Your task to perform on an android device: Search for Italian restaurants on Maps Image 0: 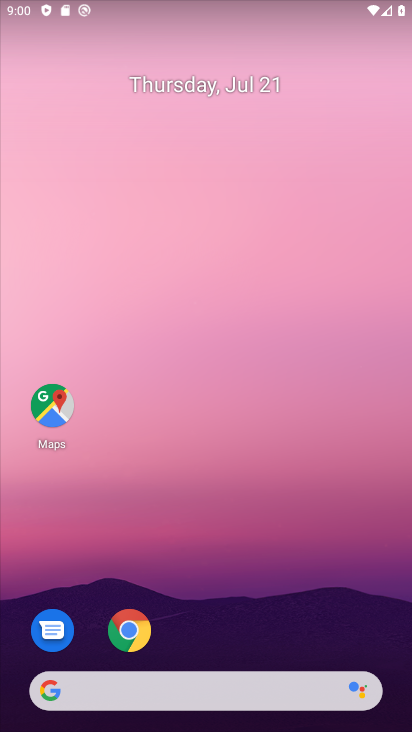
Step 0: drag from (212, 708) to (210, 183)
Your task to perform on an android device: Search for Italian restaurants on Maps Image 1: 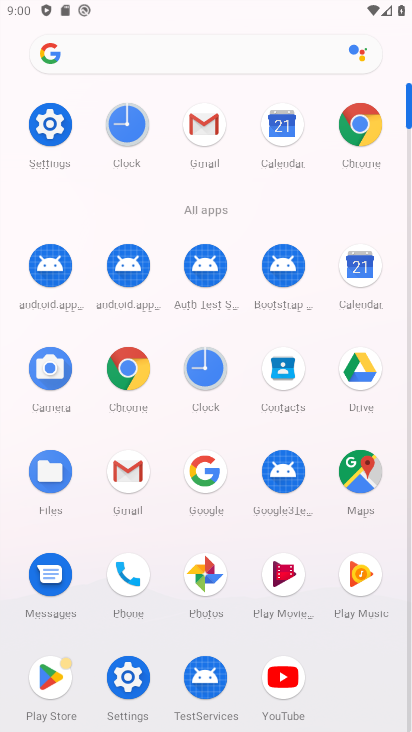
Step 1: click (355, 471)
Your task to perform on an android device: Search for Italian restaurants on Maps Image 2: 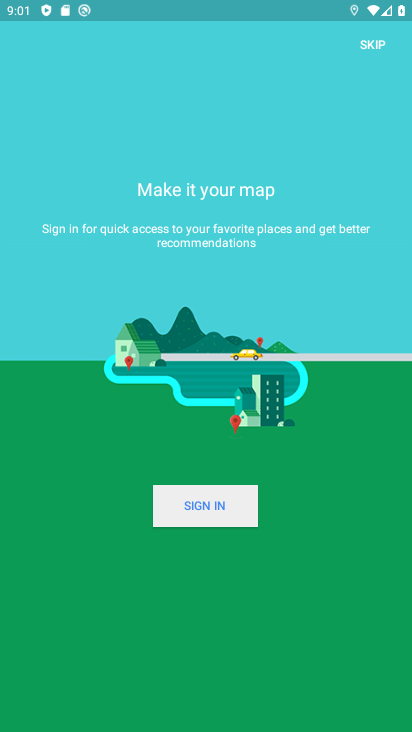
Step 2: task complete